Your task to perform on an android device: Go to display settings Image 0: 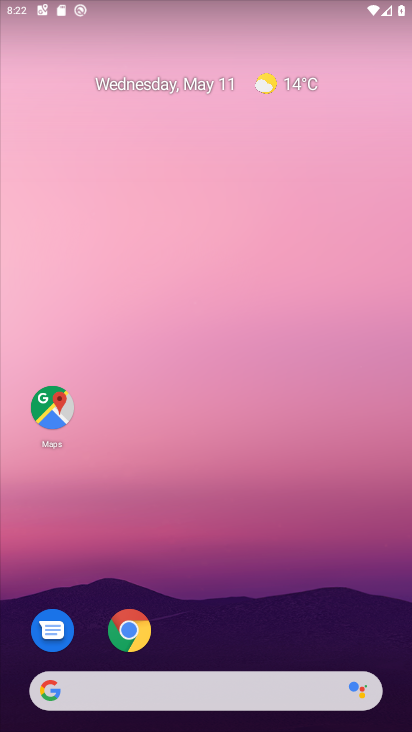
Step 0: drag from (13, 678) to (216, 197)
Your task to perform on an android device: Go to display settings Image 1: 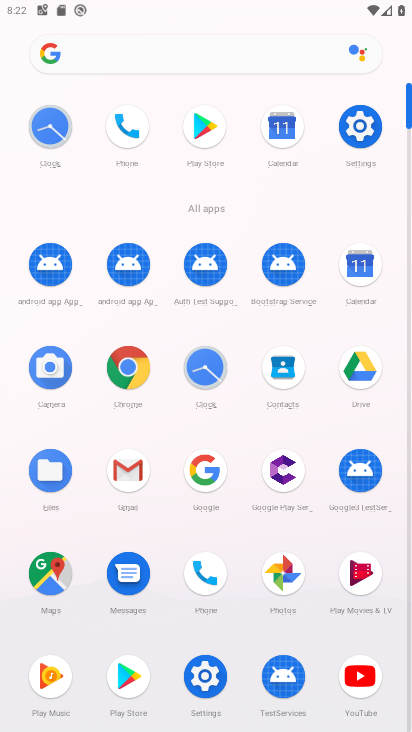
Step 1: click (367, 126)
Your task to perform on an android device: Go to display settings Image 2: 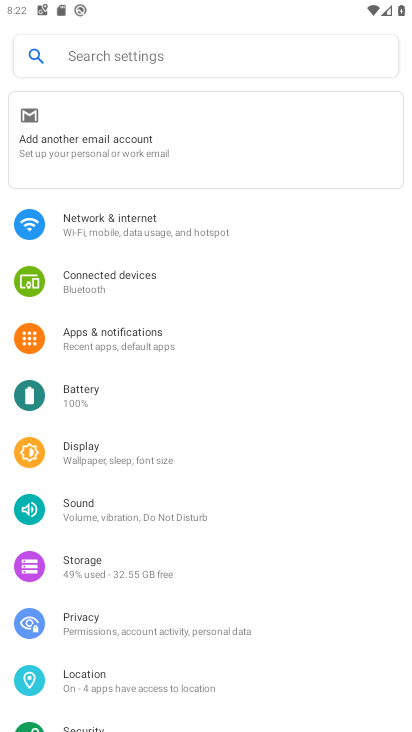
Step 2: click (116, 455)
Your task to perform on an android device: Go to display settings Image 3: 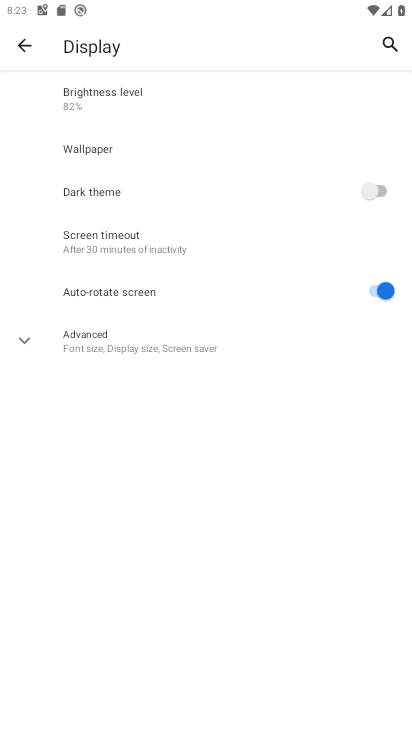
Step 3: task complete